Your task to perform on an android device: delete a single message in the gmail app Image 0: 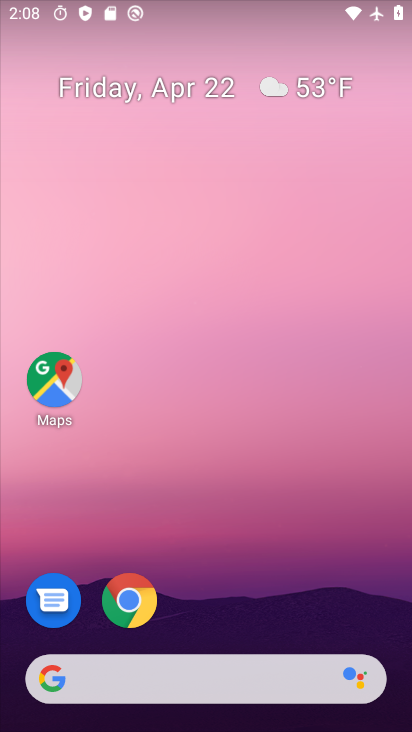
Step 0: drag from (226, 724) to (229, 127)
Your task to perform on an android device: delete a single message in the gmail app Image 1: 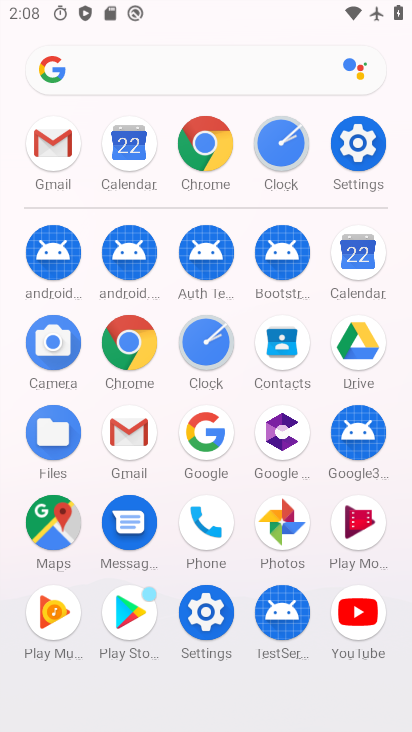
Step 1: click (135, 429)
Your task to perform on an android device: delete a single message in the gmail app Image 2: 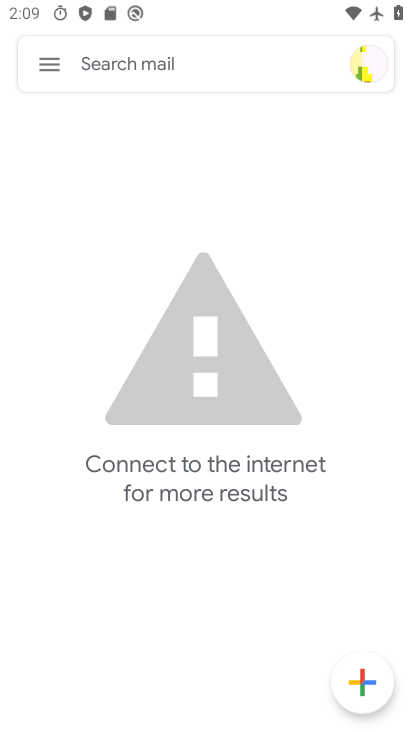
Step 2: task complete